Your task to perform on an android device: When is my next appointment? Image 0: 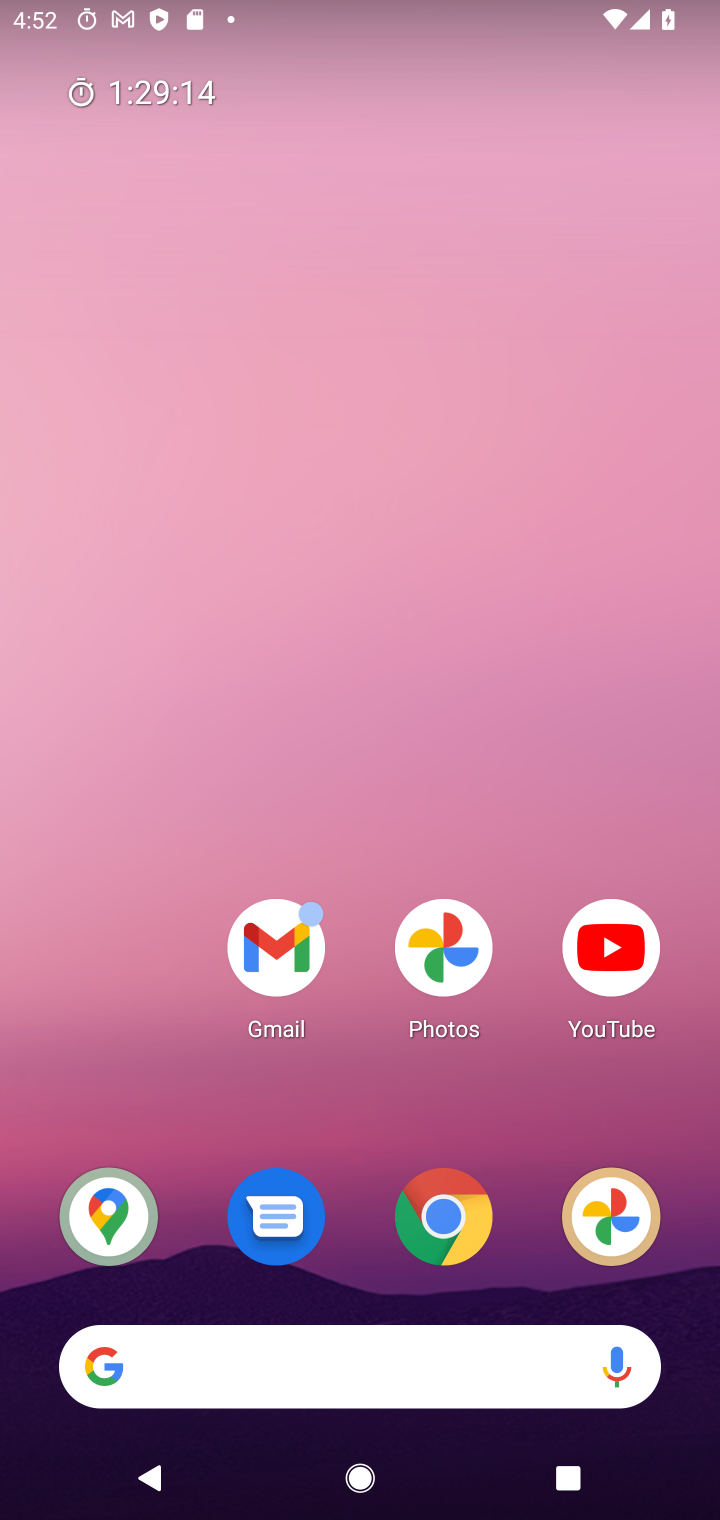
Step 0: drag from (137, 1195) to (617, 190)
Your task to perform on an android device: When is my next appointment? Image 1: 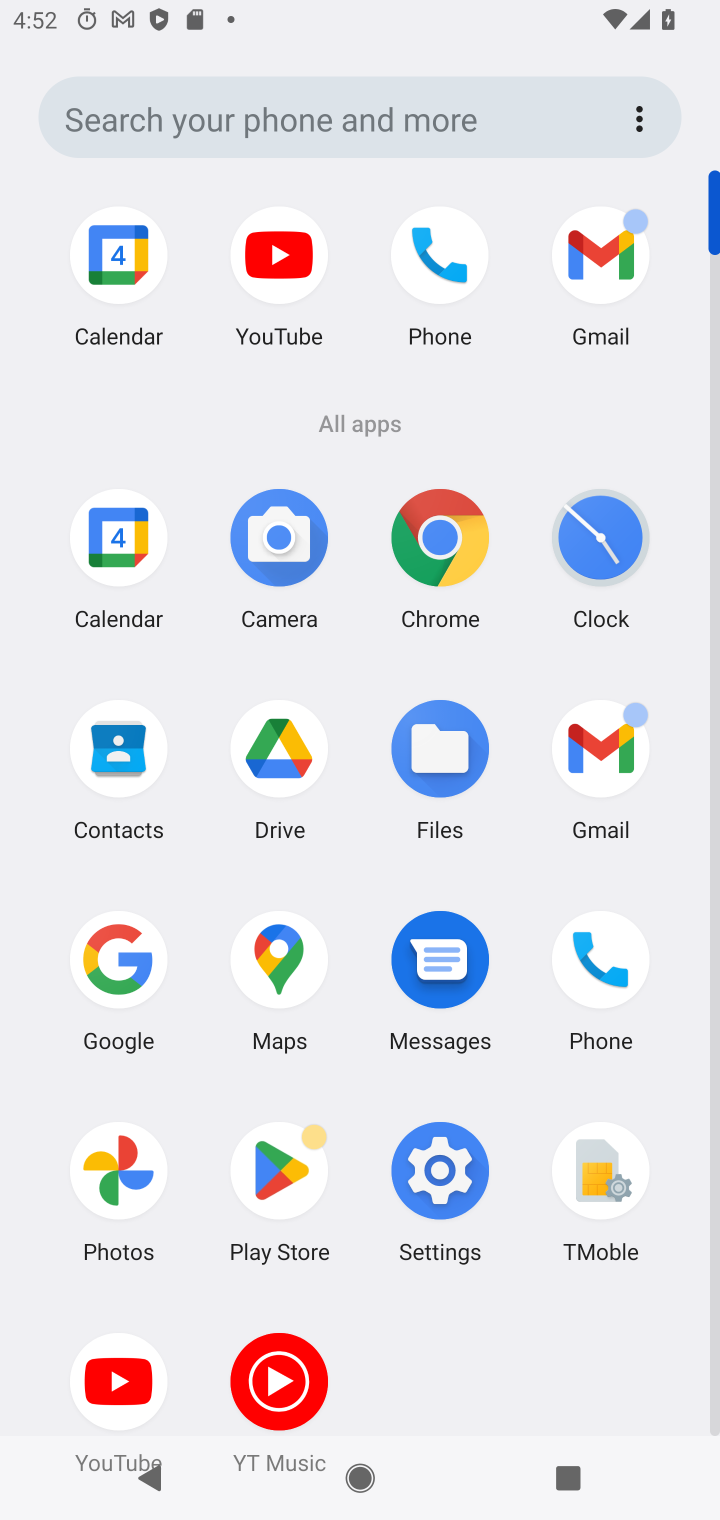
Step 1: click (115, 540)
Your task to perform on an android device: When is my next appointment? Image 2: 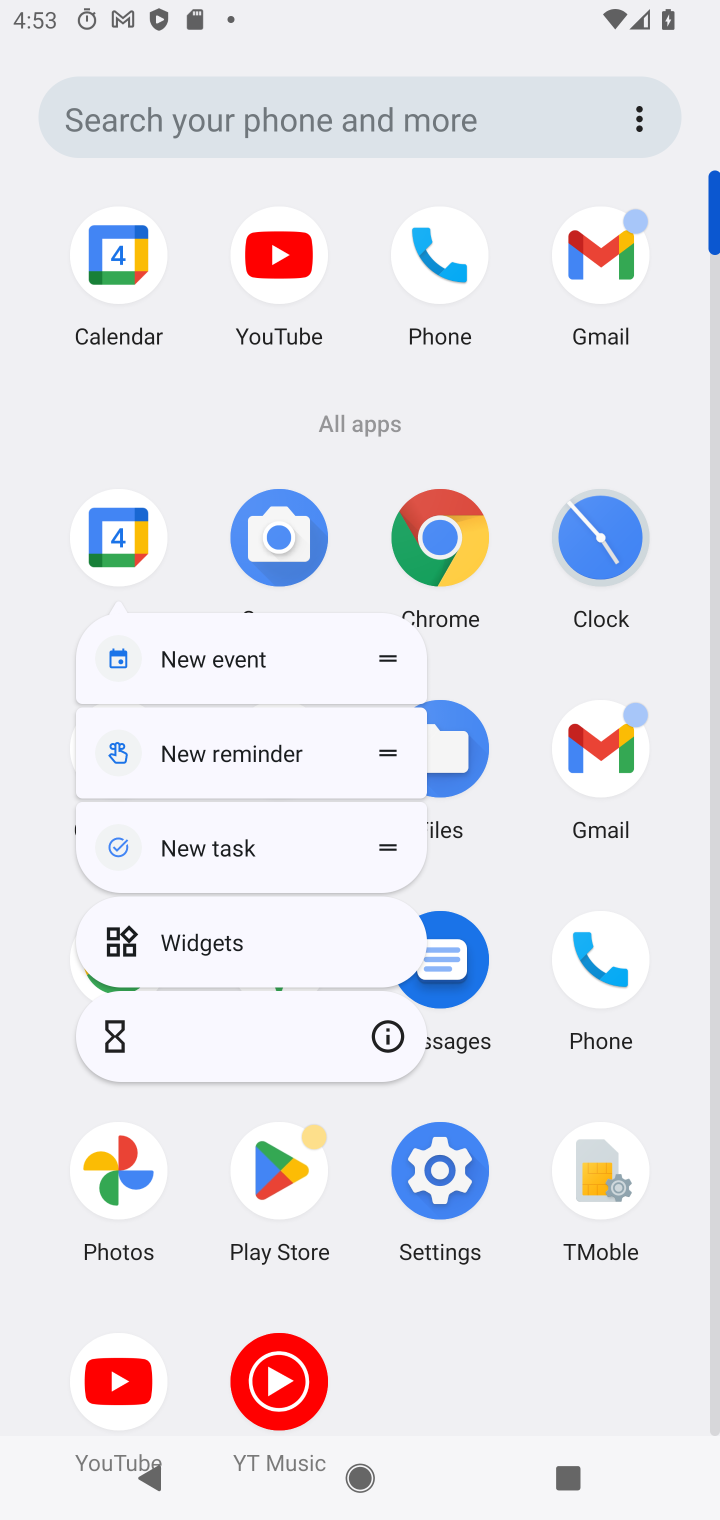
Step 2: task complete